Your task to perform on an android device: turn on data saver in the chrome app Image 0: 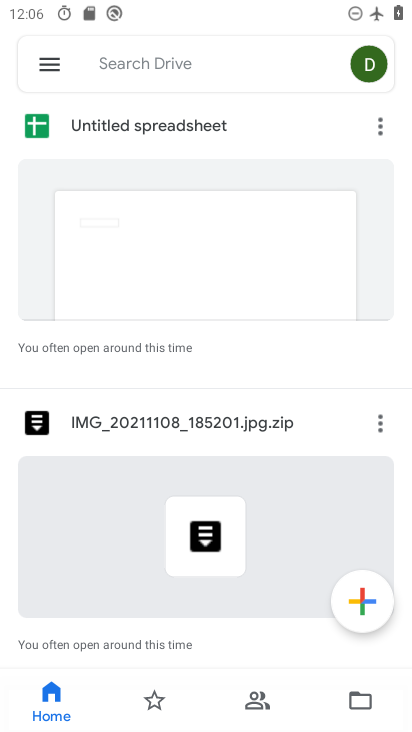
Step 0: press home button
Your task to perform on an android device: turn on data saver in the chrome app Image 1: 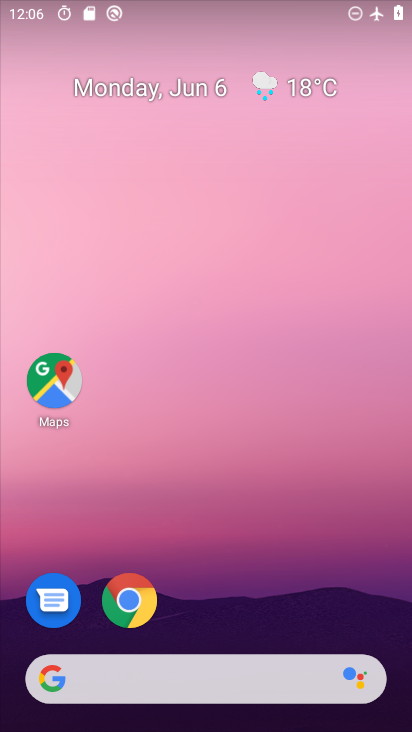
Step 1: click (143, 607)
Your task to perform on an android device: turn on data saver in the chrome app Image 2: 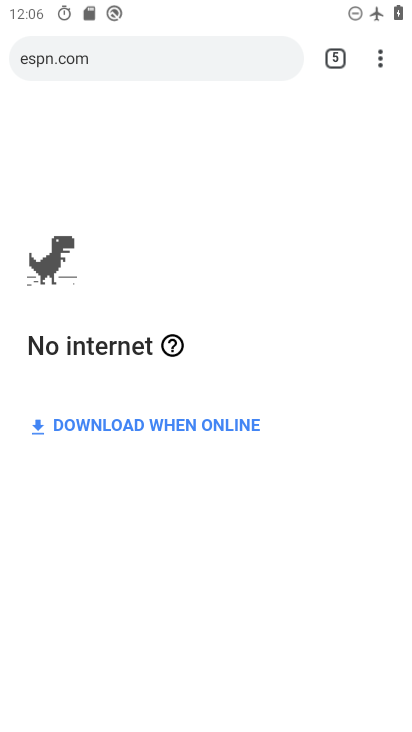
Step 2: drag from (375, 58) to (172, 626)
Your task to perform on an android device: turn on data saver in the chrome app Image 3: 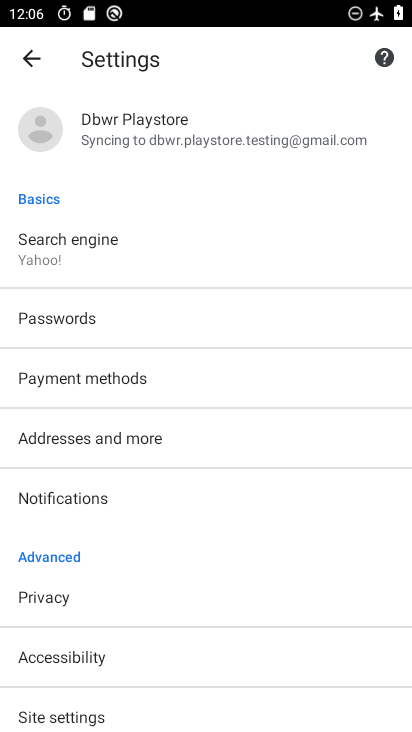
Step 3: drag from (135, 652) to (189, 331)
Your task to perform on an android device: turn on data saver in the chrome app Image 4: 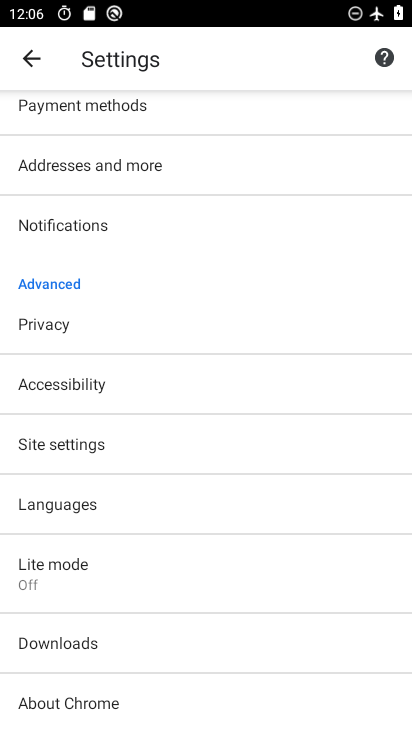
Step 4: click (86, 577)
Your task to perform on an android device: turn on data saver in the chrome app Image 5: 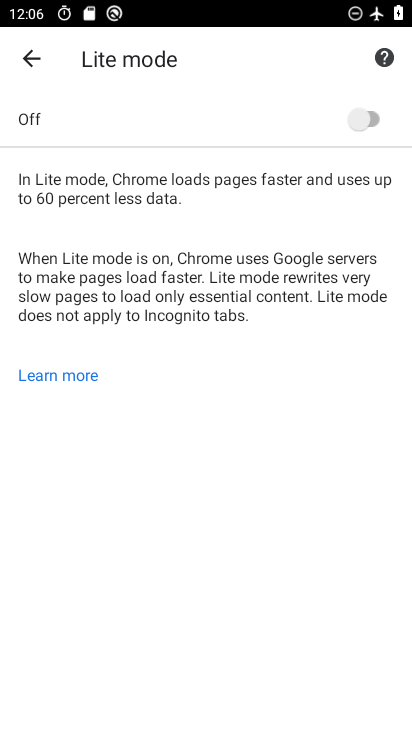
Step 5: click (369, 115)
Your task to perform on an android device: turn on data saver in the chrome app Image 6: 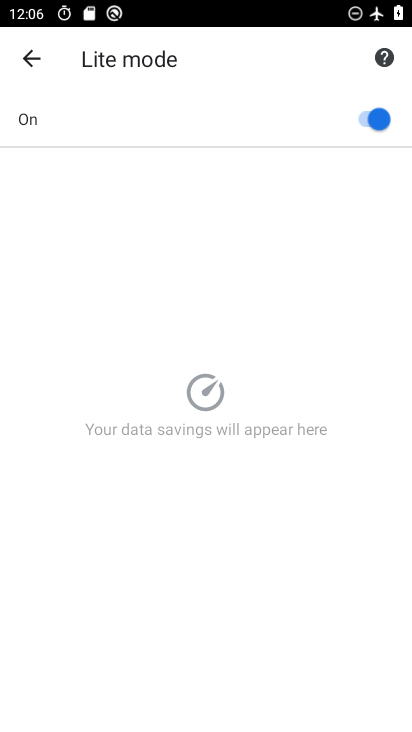
Step 6: task complete